Your task to perform on an android device: change the clock style Image 0: 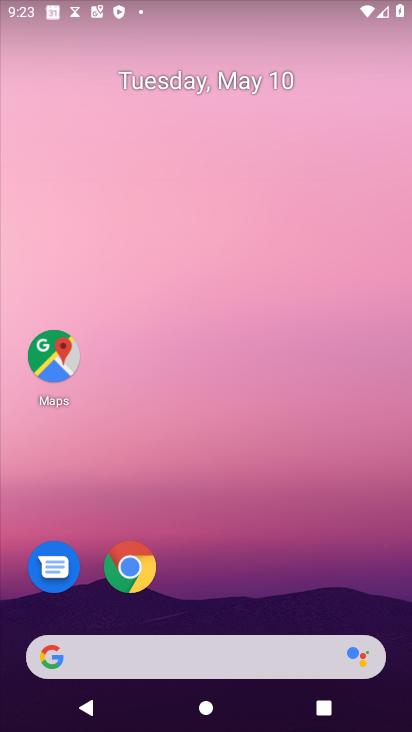
Step 0: drag from (96, 499) to (237, 107)
Your task to perform on an android device: change the clock style Image 1: 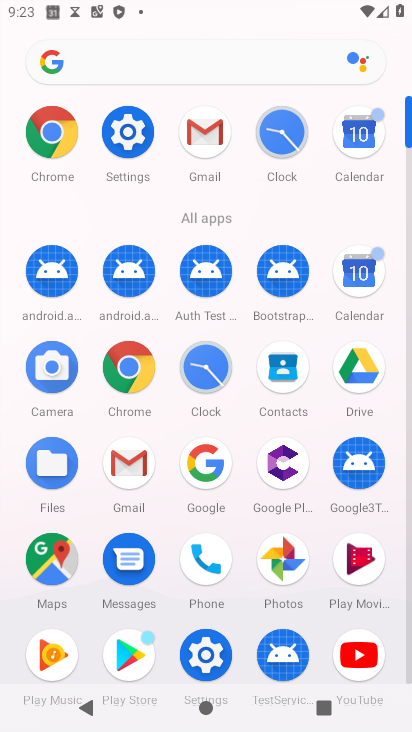
Step 1: click (201, 368)
Your task to perform on an android device: change the clock style Image 2: 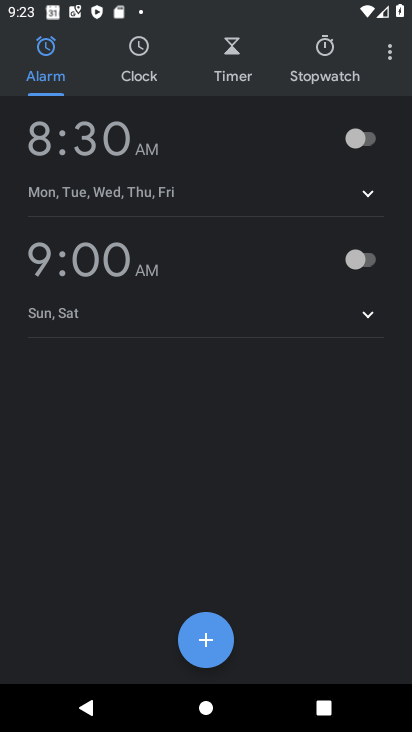
Step 2: click (390, 50)
Your task to perform on an android device: change the clock style Image 3: 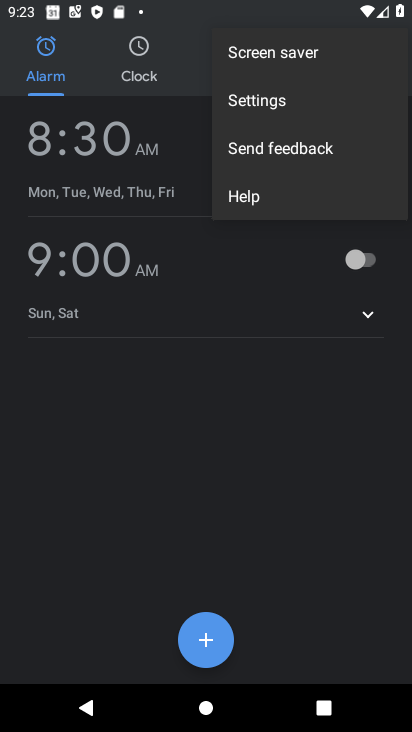
Step 3: click (295, 102)
Your task to perform on an android device: change the clock style Image 4: 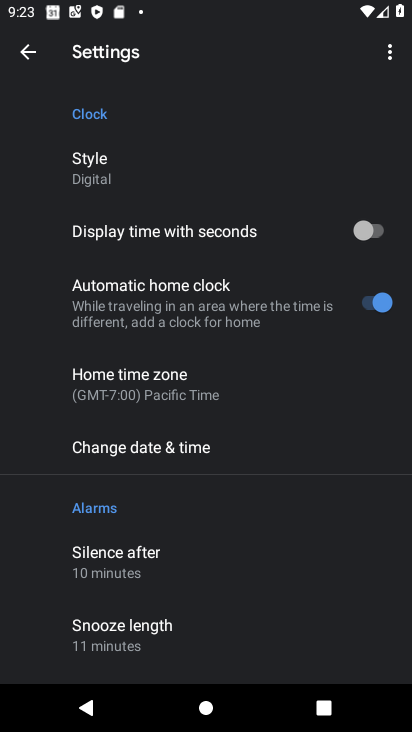
Step 4: click (109, 165)
Your task to perform on an android device: change the clock style Image 5: 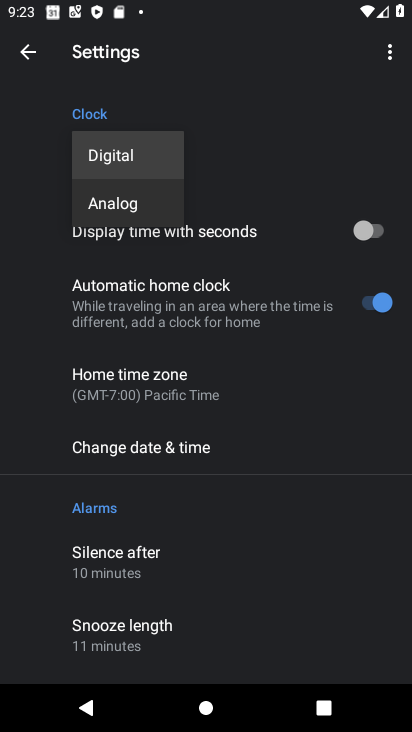
Step 5: click (119, 213)
Your task to perform on an android device: change the clock style Image 6: 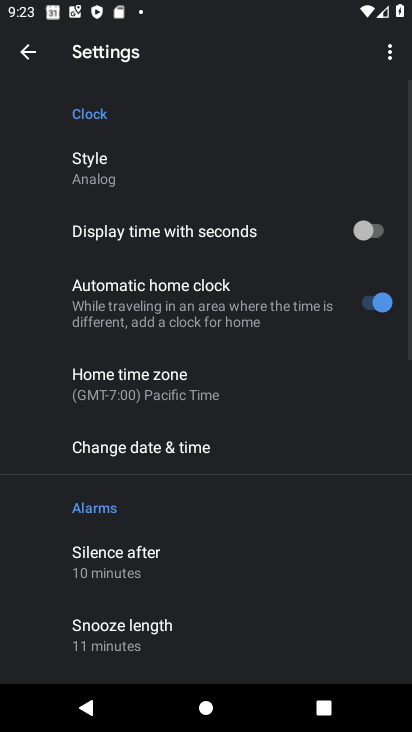
Step 6: task complete